Your task to perform on an android device: open chrome privacy settings Image 0: 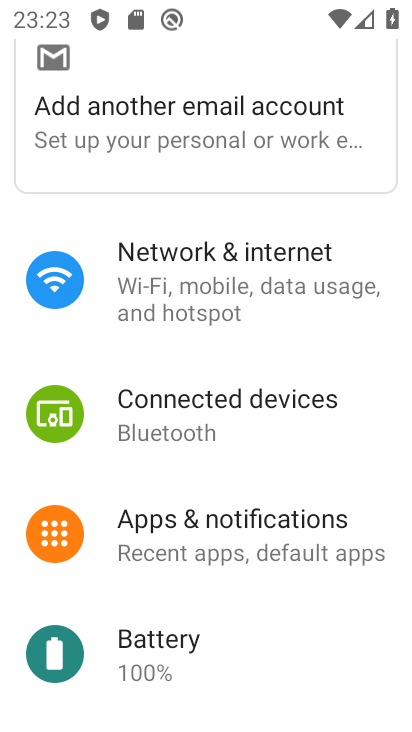
Step 0: press home button
Your task to perform on an android device: open chrome privacy settings Image 1: 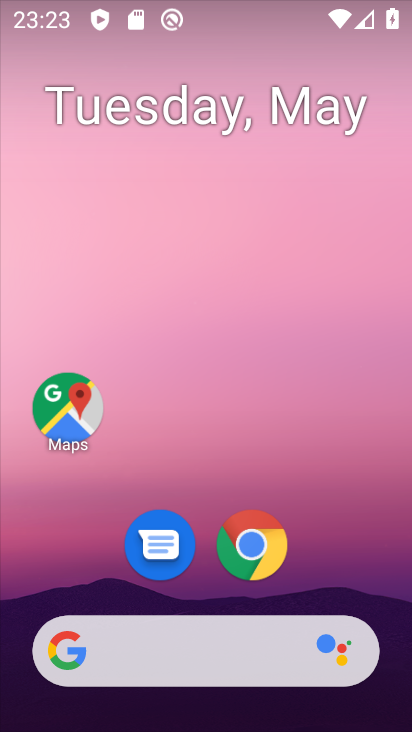
Step 1: click (253, 542)
Your task to perform on an android device: open chrome privacy settings Image 2: 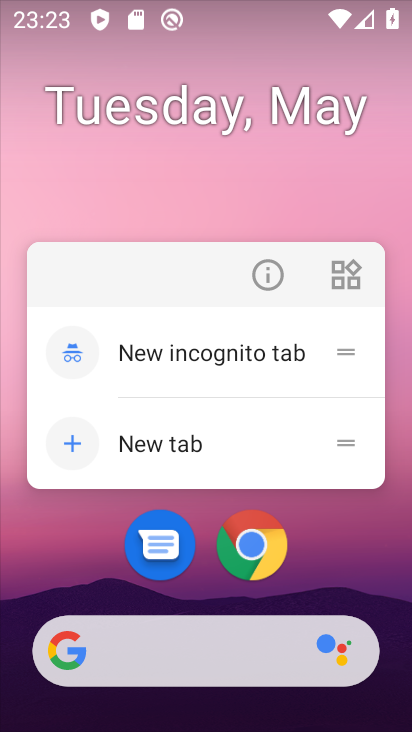
Step 2: click (271, 273)
Your task to perform on an android device: open chrome privacy settings Image 3: 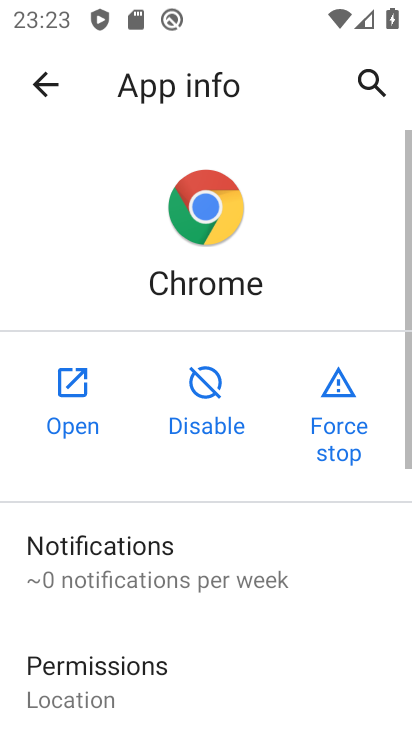
Step 3: click (70, 406)
Your task to perform on an android device: open chrome privacy settings Image 4: 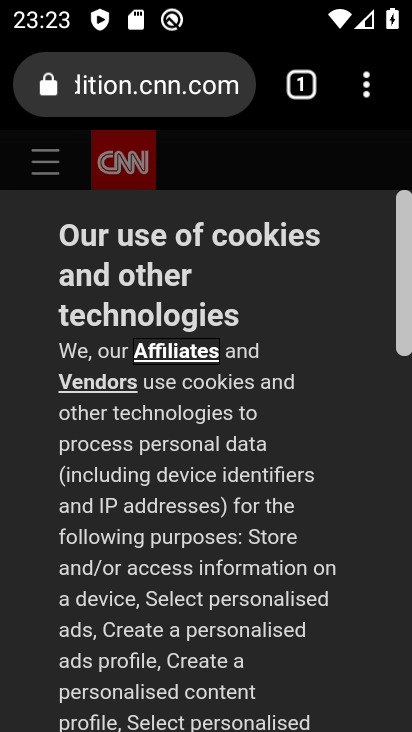
Step 4: click (367, 89)
Your task to perform on an android device: open chrome privacy settings Image 5: 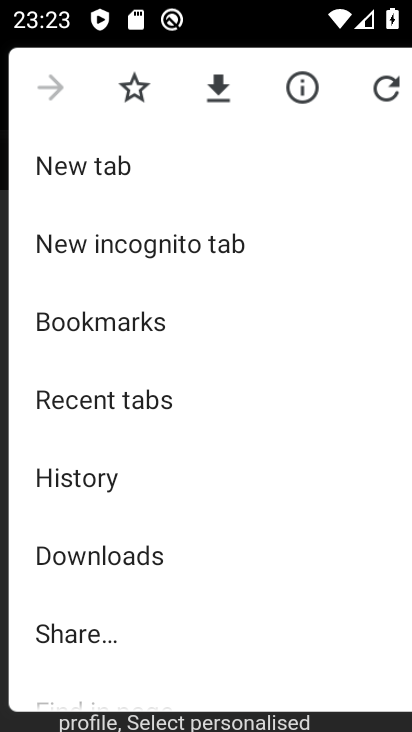
Step 5: drag from (107, 603) to (208, 206)
Your task to perform on an android device: open chrome privacy settings Image 6: 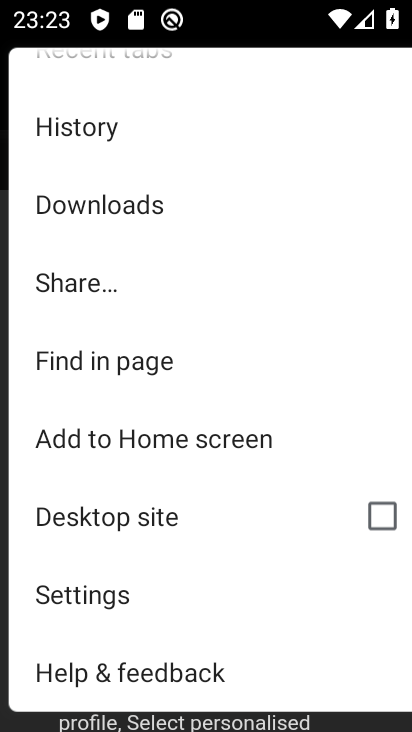
Step 6: click (92, 597)
Your task to perform on an android device: open chrome privacy settings Image 7: 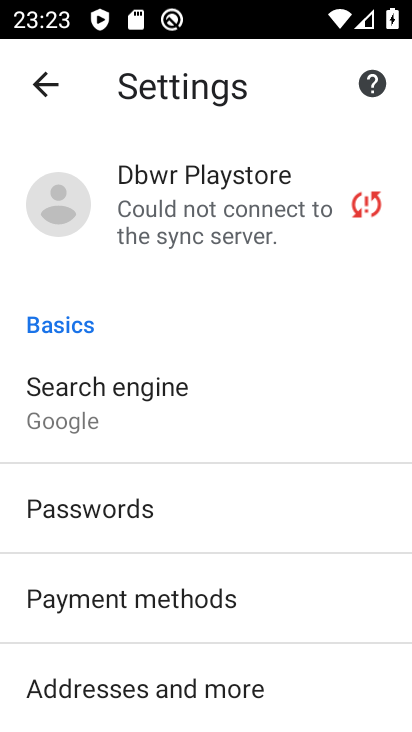
Step 7: drag from (137, 620) to (184, 208)
Your task to perform on an android device: open chrome privacy settings Image 8: 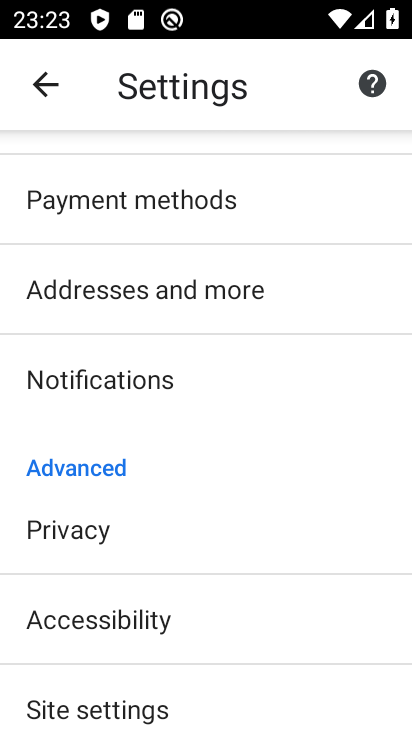
Step 8: click (129, 546)
Your task to perform on an android device: open chrome privacy settings Image 9: 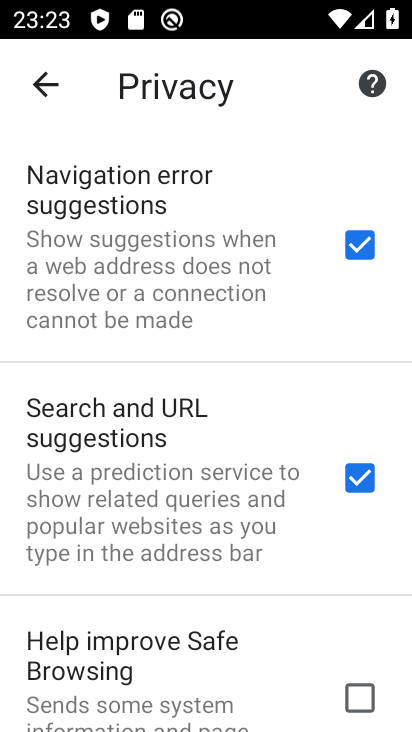
Step 9: task complete